Your task to perform on an android device: open chrome privacy settings Image 0: 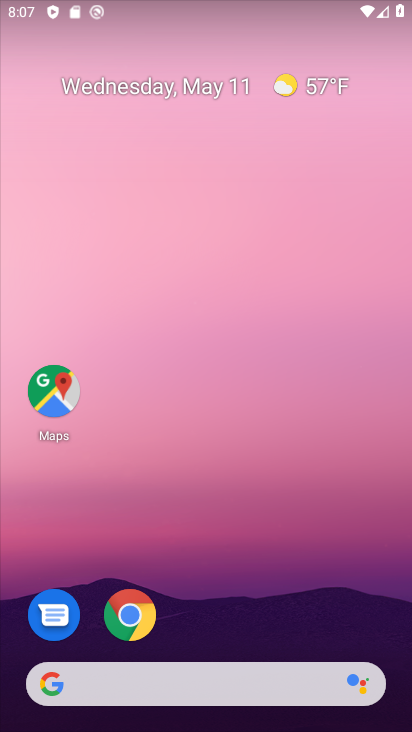
Step 0: click (127, 626)
Your task to perform on an android device: open chrome privacy settings Image 1: 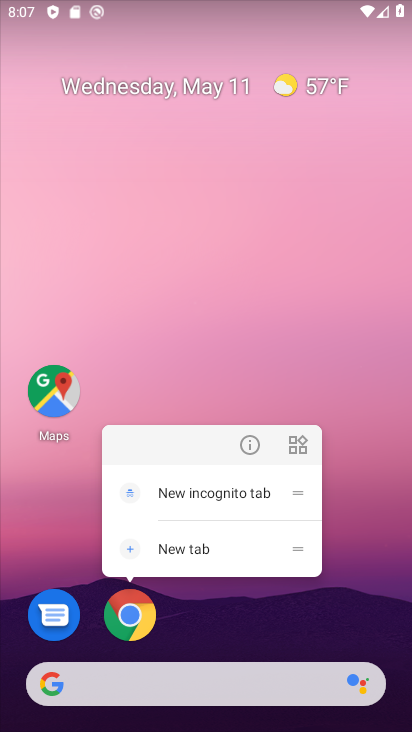
Step 1: click (145, 620)
Your task to perform on an android device: open chrome privacy settings Image 2: 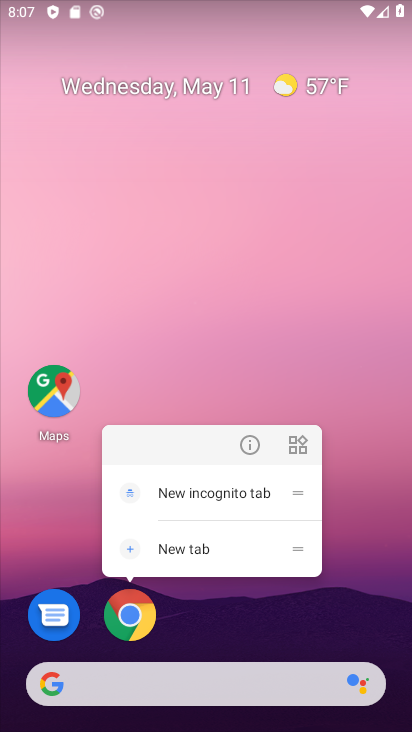
Step 2: click (148, 621)
Your task to perform on an android device: open chrome privacy settings Image 3: 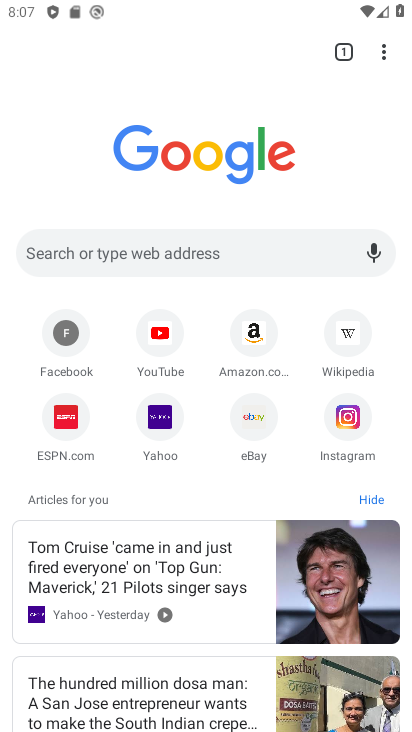
Step 3: drag from (382, 54) to (245, 436)
Your task to perform on an android device: open chrome privacy settings Image 4: 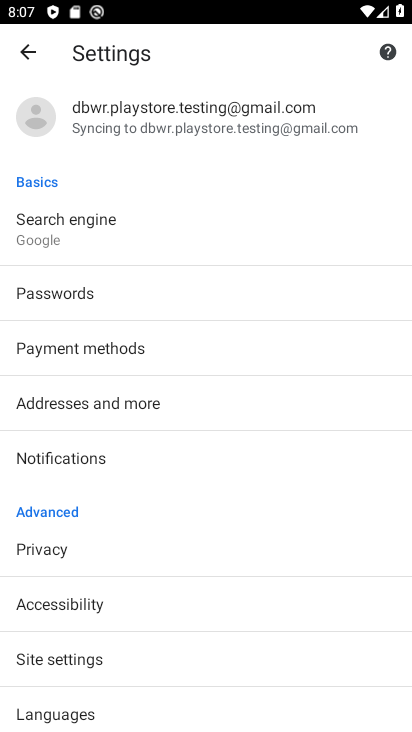
Step 4: click (52, 547)
Your task to perform on an android device: open chrome privacy settings Image 5: 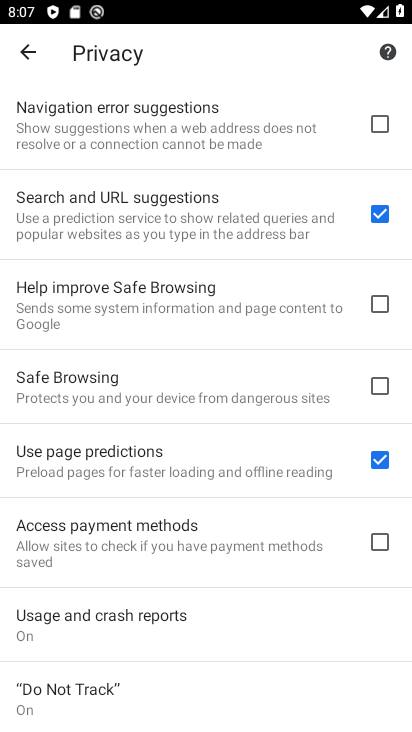
Step 5: task complete